Your task to perform on an android device: find which apps use the phone's location Image 0: 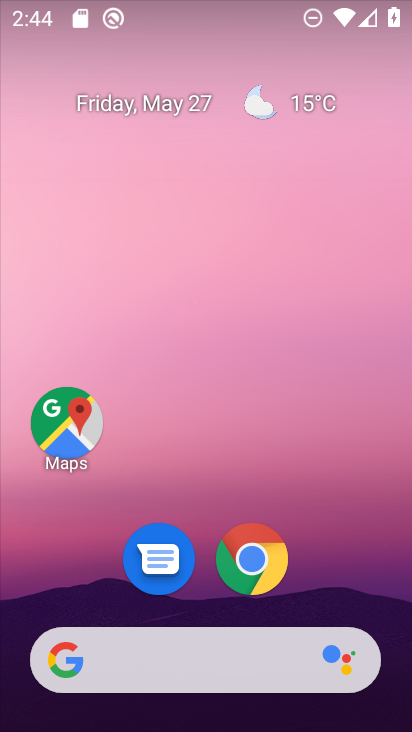
Step 0: drag from (304, 641) to (392, 0)
Your task to perform on an android device: find which apps use the phone's location Image 1: 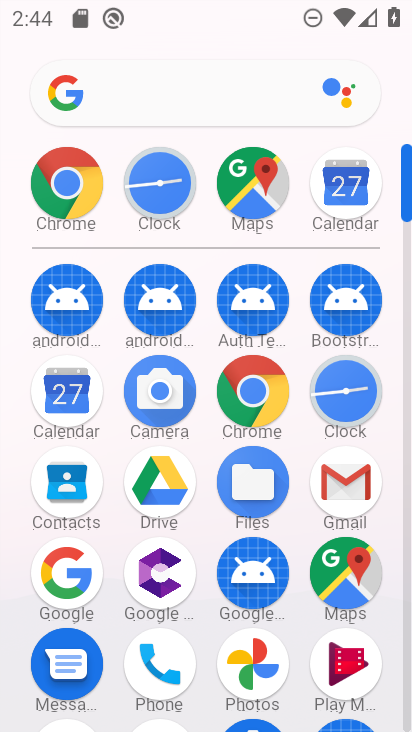
Step 1: drag from (282, 645) to (274, 69)
Your task to perform on an android device: find which apps use the phone's location Image 2: 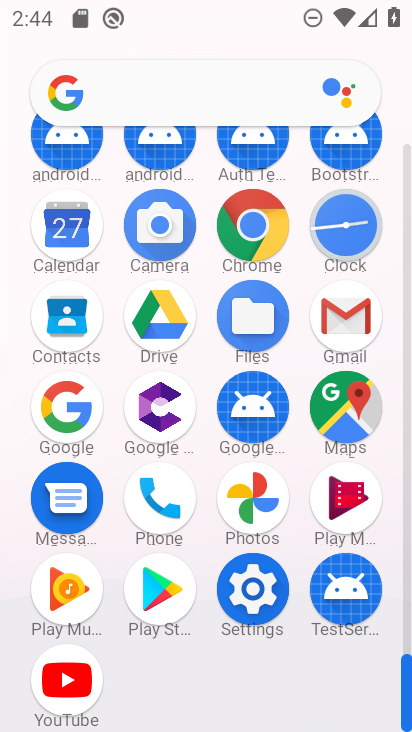
Step 2: click (258, 585)
Your task to perform on an android device: find which apps use the phone's location Image 3: 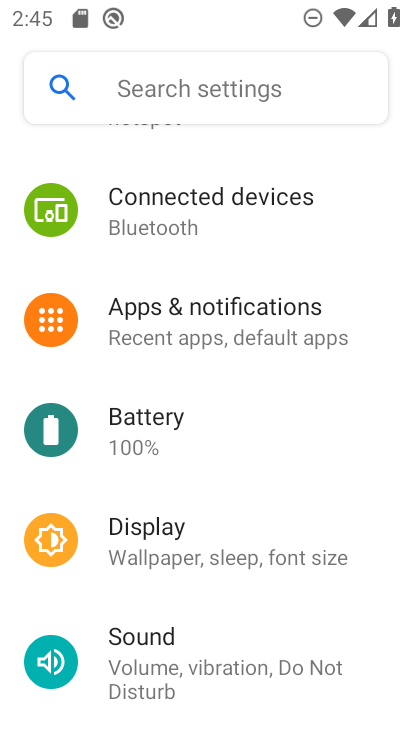
Step 3: drag from (210, 255) to (252, 724)
Your task to perform on an android device: find which apps use the phone's location Image 4: 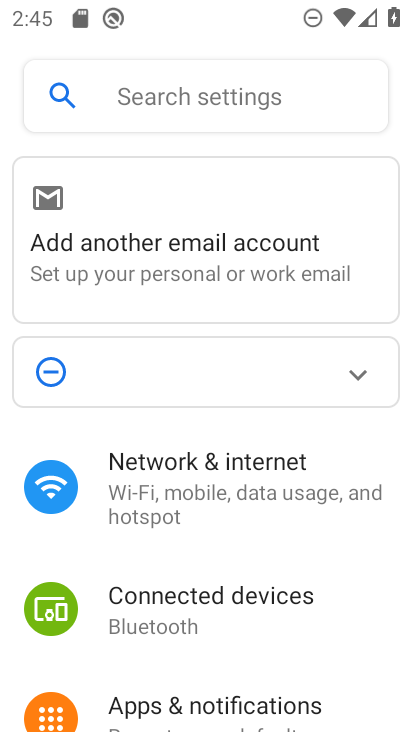
Step 4: drag from (238, 642) to (328, 30)
Your task to perform on an android device: find which apps use the phone's location Image 5: 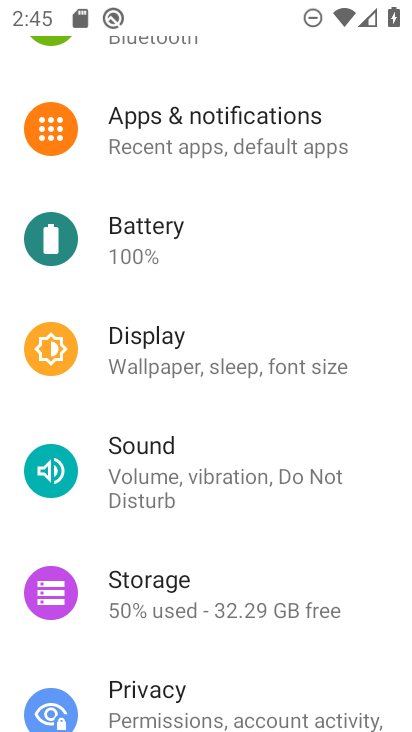
Step 5: drag from (303, 648) to (318, 163)
Your task to perform on an android device: find which apps use the phone's location Image 6: 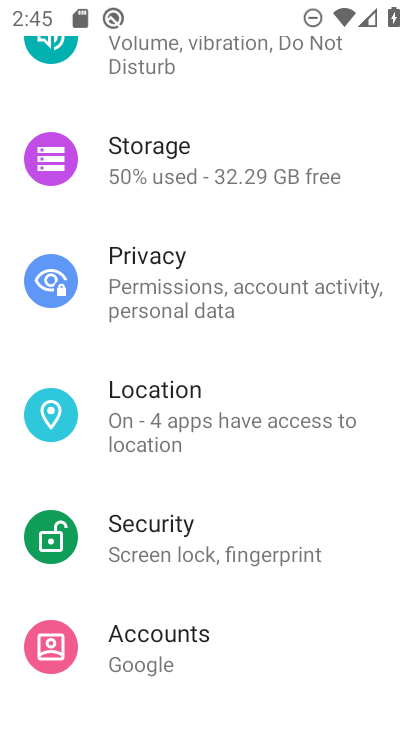
Step 6: click (235, 407)
Your task to perform on an android device: find which apps use the phone's location Image 7: 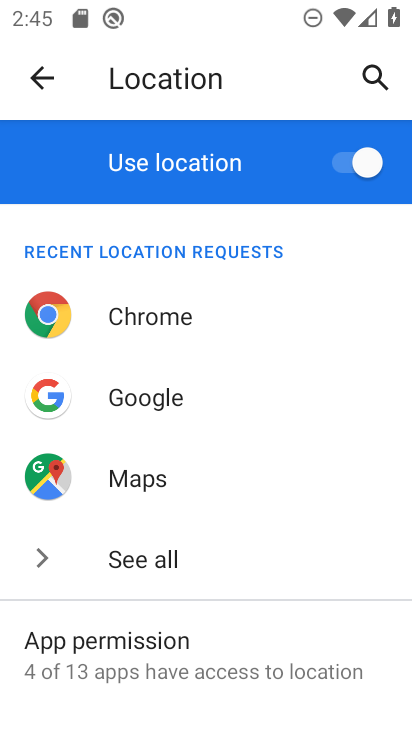
Step 7: click (188, 655)
Your task to perform on an android device: find which apps use the phone's location Image 8: 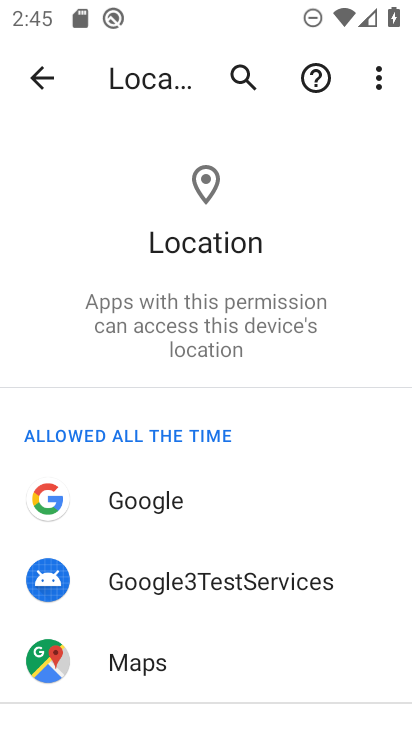
Step 8: task complete